Your task to perform on an android device: Open Youtube and go to "Your channel" Image 0: 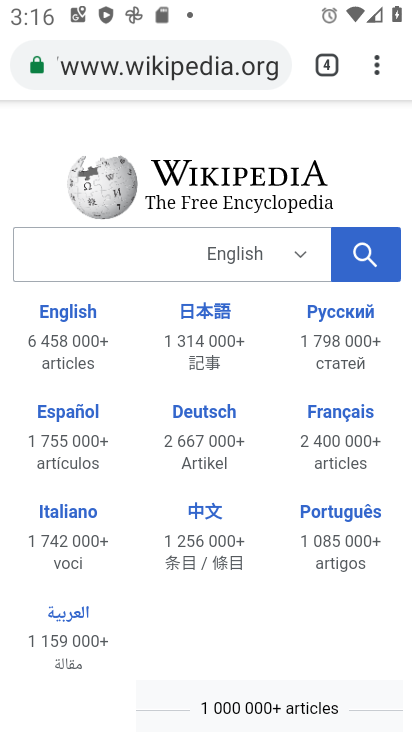
Step 0: press home button
Your task to perform on an android device: Open Youtube and go to "Your channel" Image 1: 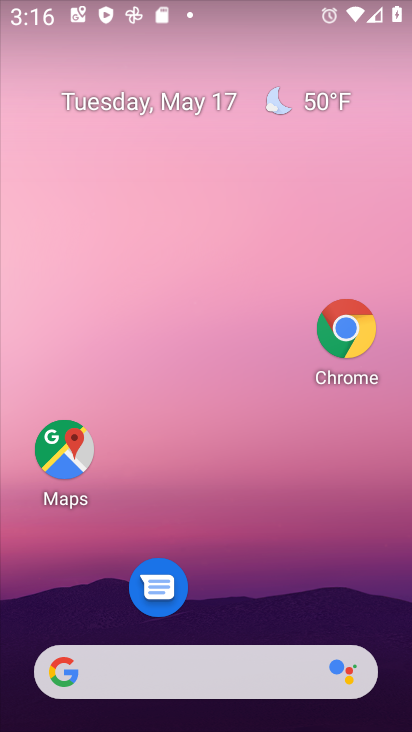
Step 1: drag from (236, 563) to (245, 91)
Your task to perform on an android device: Open Youtube and go to "Your channel" Image 2: 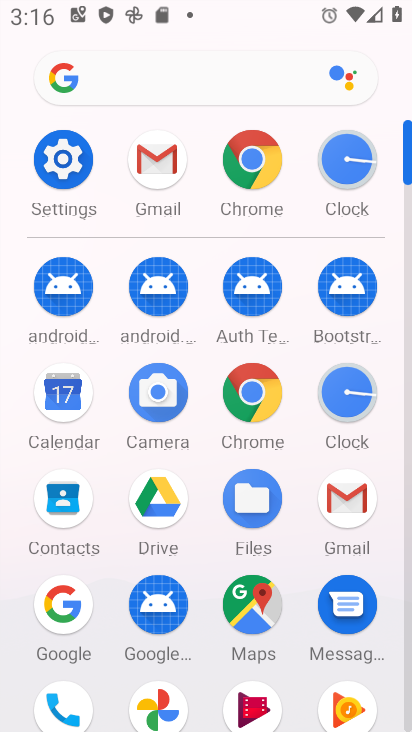
Step 2: click (406, 666)
Your task to perform on an android device: Open Youtube and go to "Your channel" Image 3: 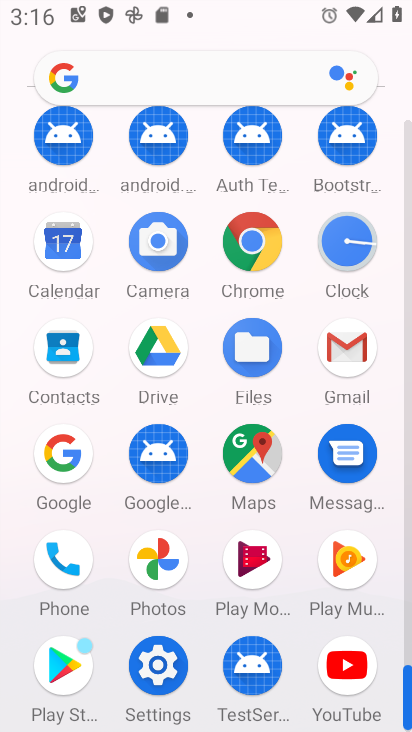
Step 3: click (359, 661)
Your task to perform on an android device: Open Youtube and go to "Your channel" Image 4: 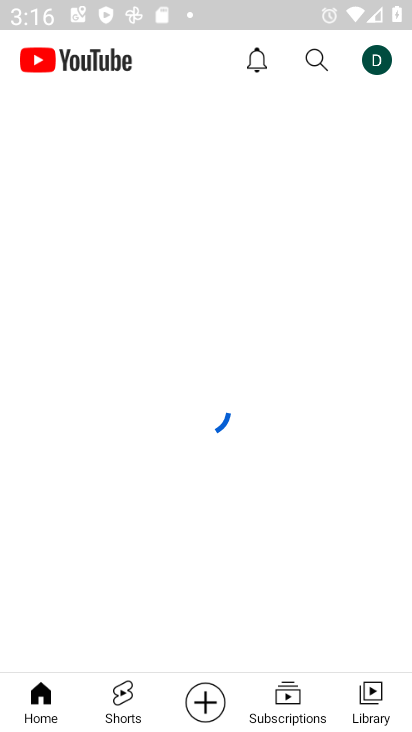
Step 4: click (366, 700)
Your task to perform on an android device: Open Youtube and go to "Your channel" Image 5: 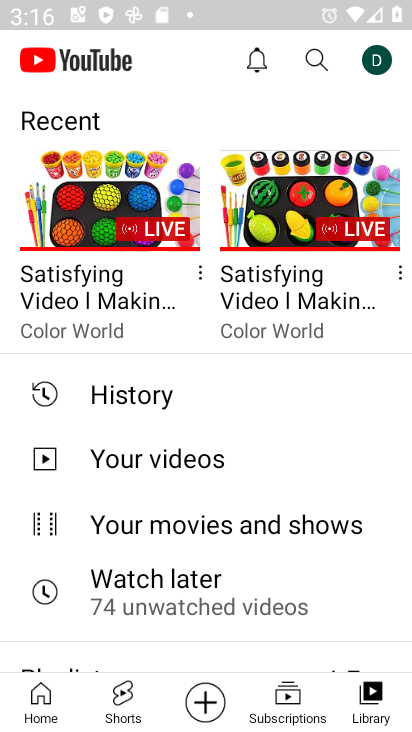
Step 5: click (389, 70)
Your task to perform on an android device: Open Youtube and go to "Your channel" Image 6: 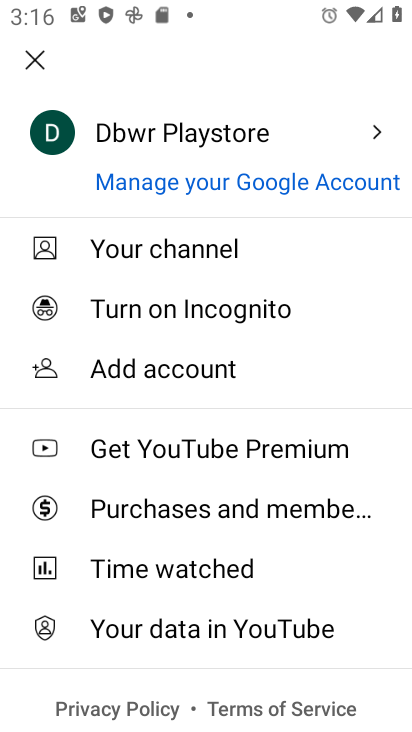
Step 6: click (236, 251)
Your task to perform on an android device: Open Youtube and go to "Your channel" Image 7: 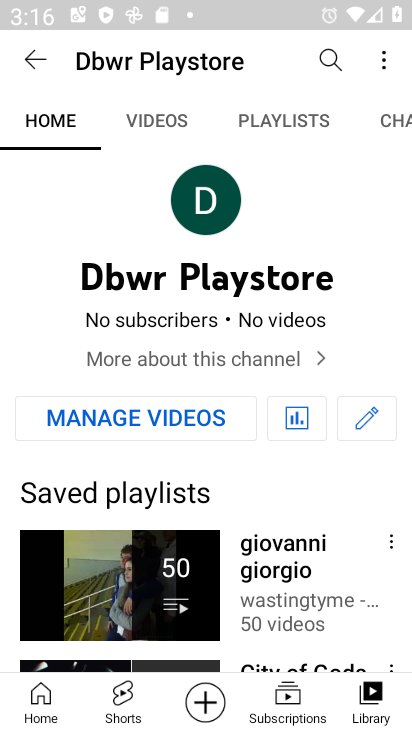
Step 7: task complete